Your task to perform on an android device: change the clock display to show seconds Image 0: 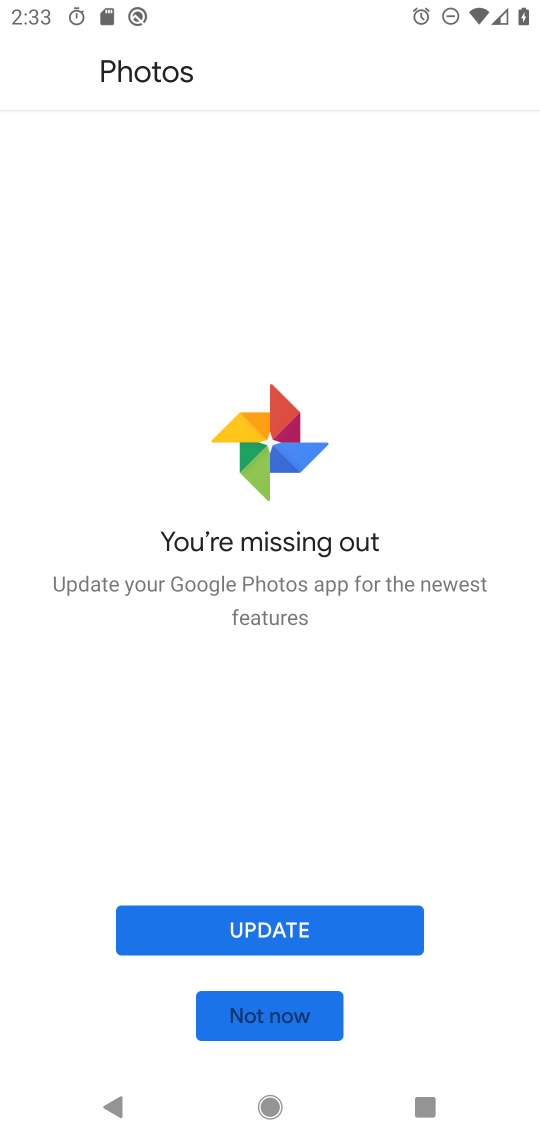
Step 0: press home button
Your task to perform on an android device: change the clock display to show seconds Image 1: 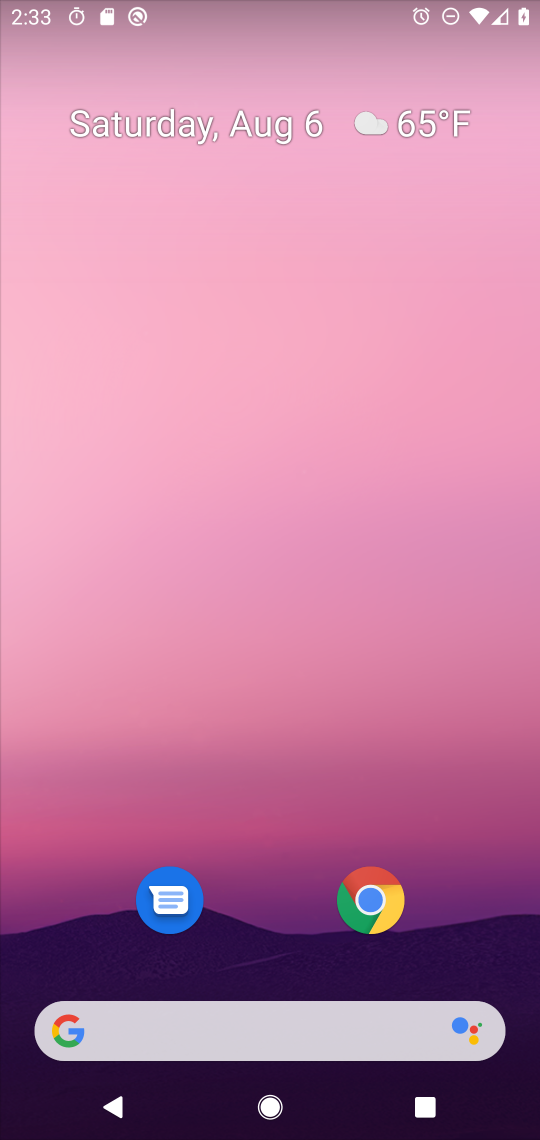
Step 1: drag from (279, 955) to (279, 191)
Your task to perform on an android device: change the clock display to show seconds Image 2: 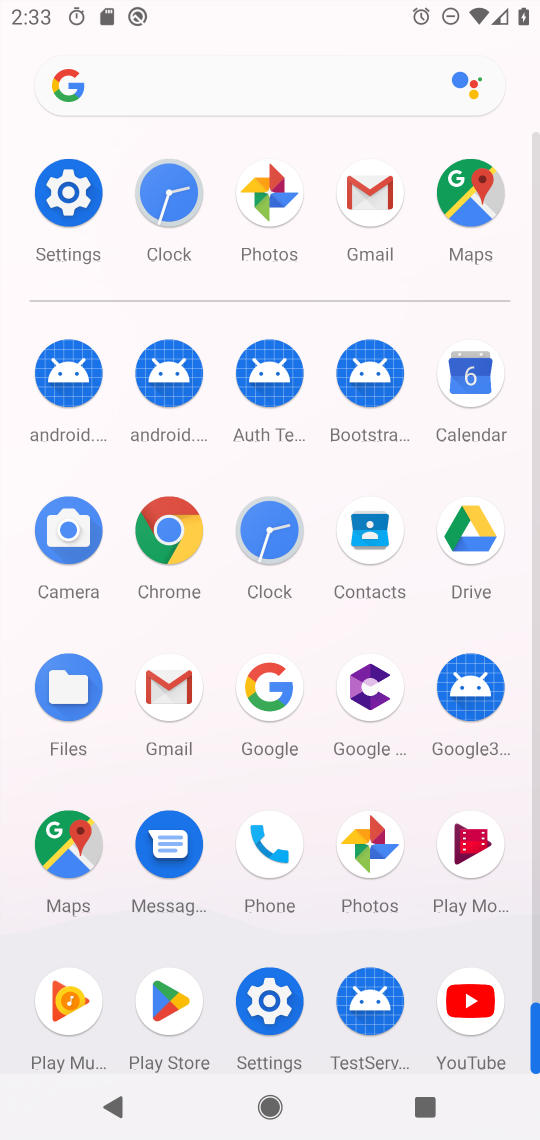
Step 2: click (268, 520)
Your task to perform on an android device: change the clock display to show seconds Image 3: 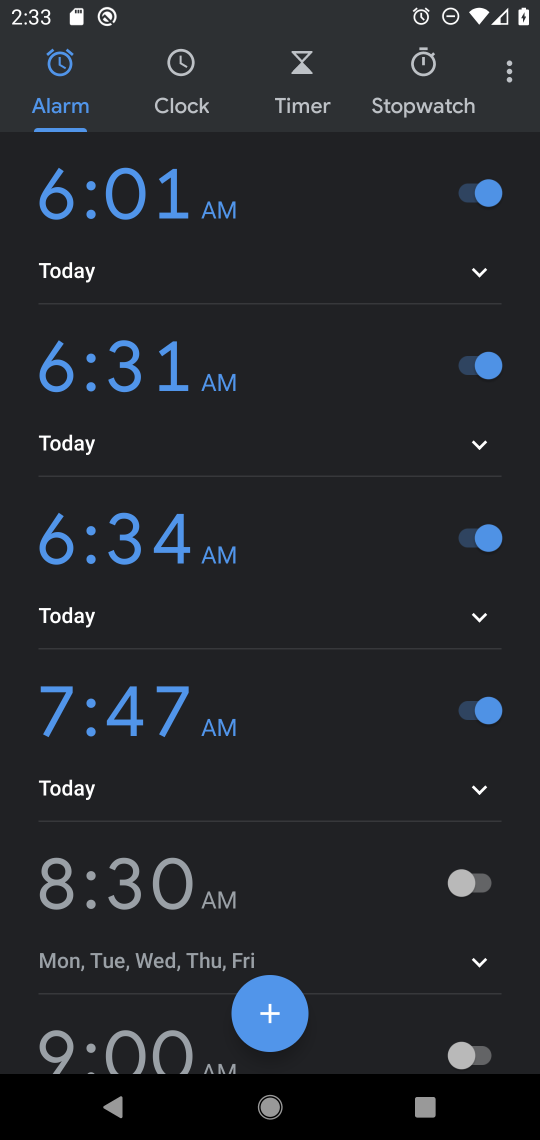
Step 3: click (507, 86)
Your task to perform on an android device: change the clock display to show seconds Image 4: 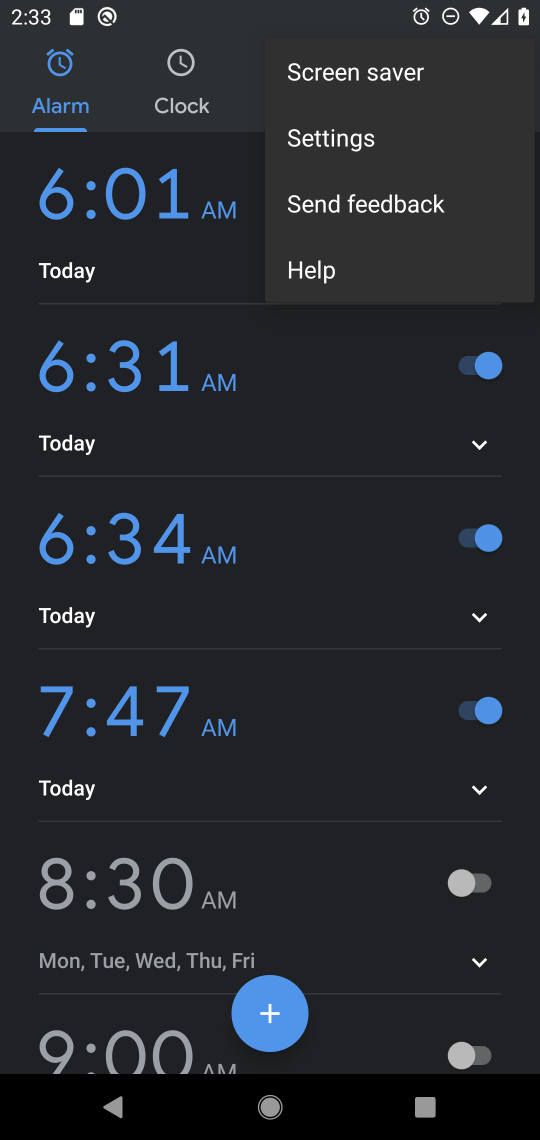
Step 4: click (360, 133)
Your task to perform on an android device: change the clock display to show seconds Image 5: 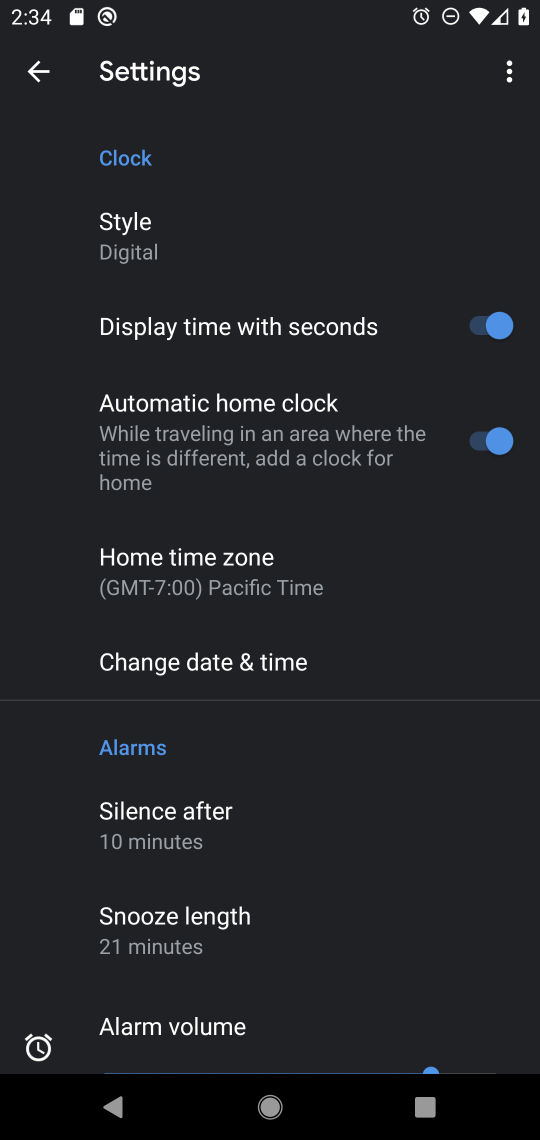
Step 5: task complete